Your task to perform on an android device: set default search engine in the chrome app Image 0: 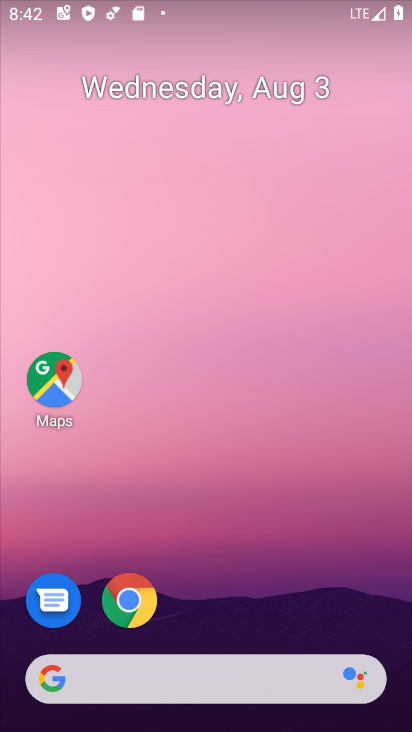
Step 0: click (136, 601)
Your task to perform on an android device: set default search engine in the chrome app Image 1: 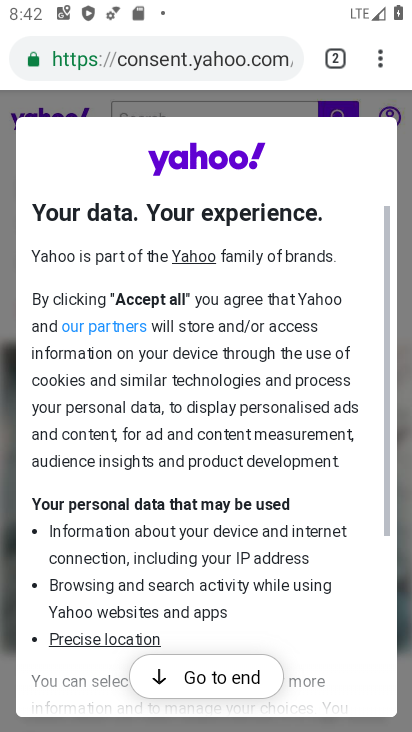
Step 1: click (374, 58)
Your task to perform on an android device: set default search engine in the chrome app Image 2: 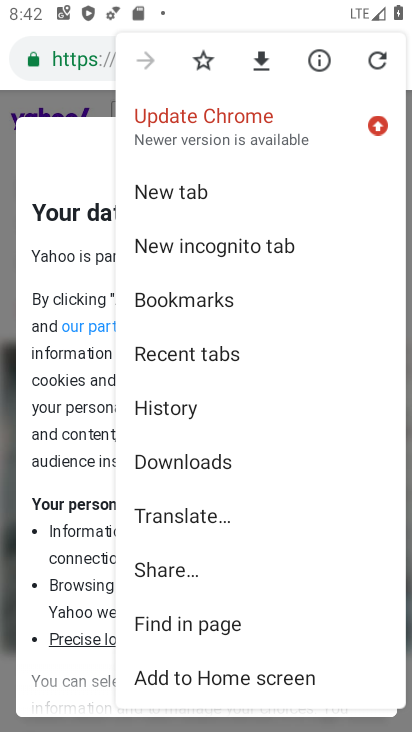
Step 2: drag from (185, 565) to (216, 304)
Your task to perform on an android device: set default search engine in the chrome app Image 3: 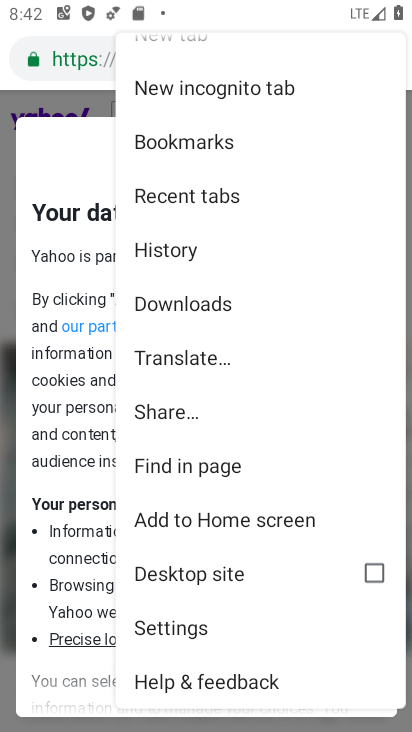
Step 3: click (174, 633)
Your task to perform on an android device: set default search engine in the chrome app Image 4: 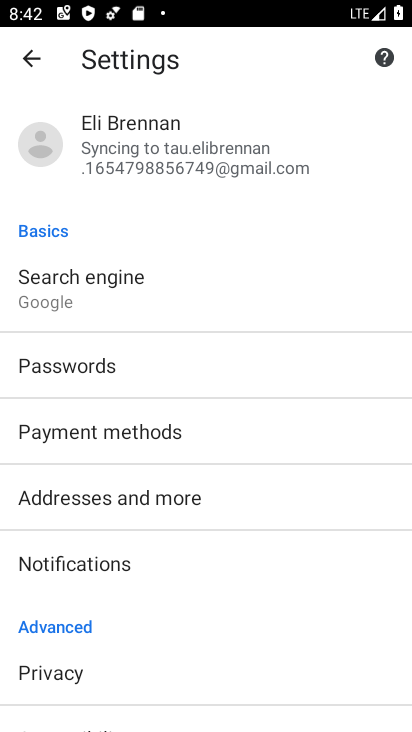
Step 4: click (112, 290)
Your task to perform on an android device: set default search engine in the chrome app Image 5: 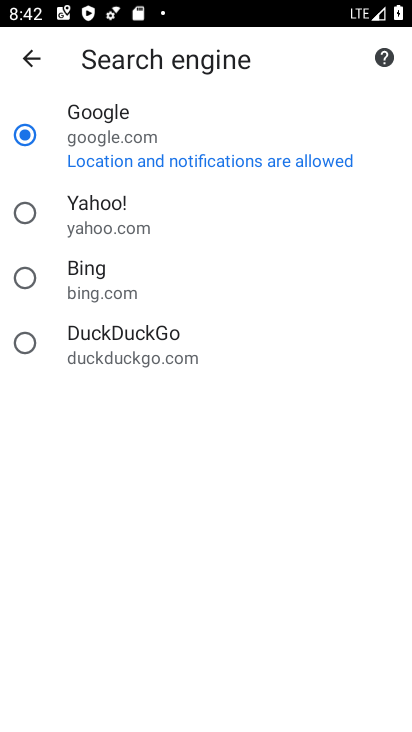
Step 5: task complete